Your task to perform on an android device: Do I have any events tomorrow? Image 0: 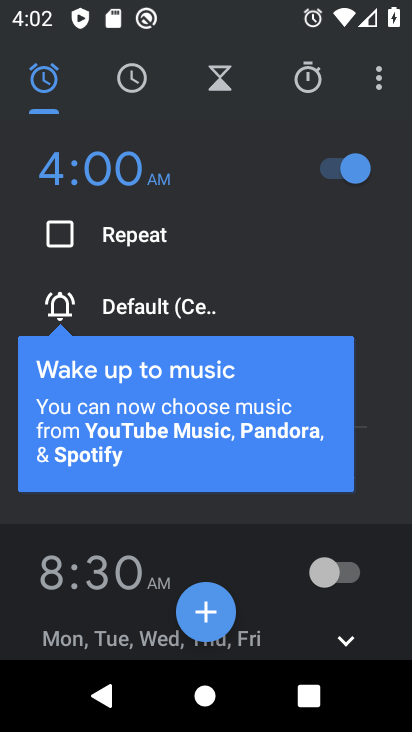
Step 0: press home button
Your task to perform on an android device: Do I have any events tomorrow? Image 1: 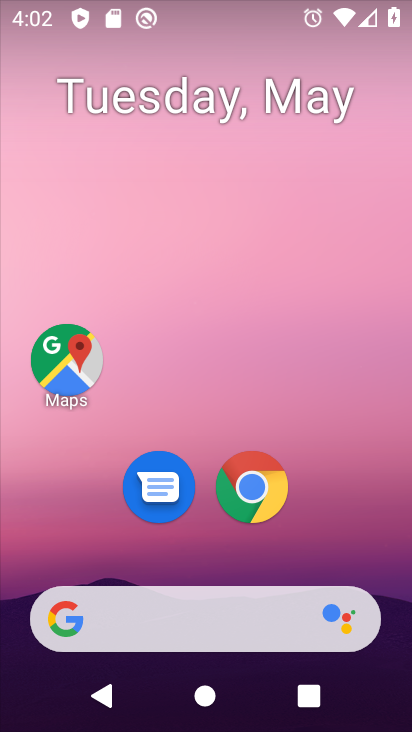
Step 1: drag from (319, 505) to (333, 105)
Your task to perform on an android device: Do I have any events tomorrow? Image 2: 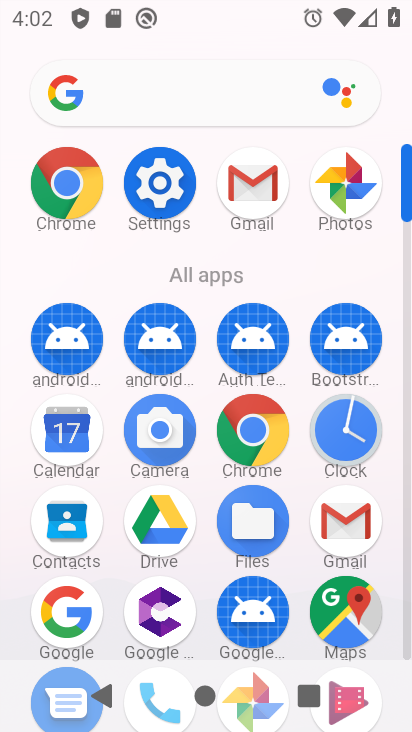
Step 2: click (68, 445)
Your task to perform on an android device: Do I have any events tomorrow? Image 3: 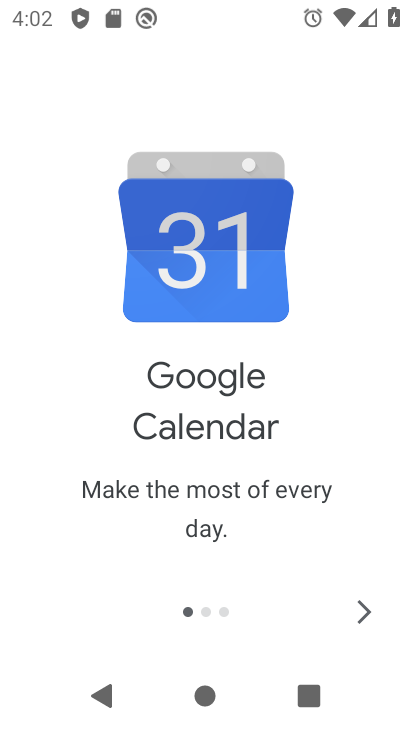
Step 3: click (366, 606)
Your task to perform on an android device: Do I have any events tomorrow? Image 4: 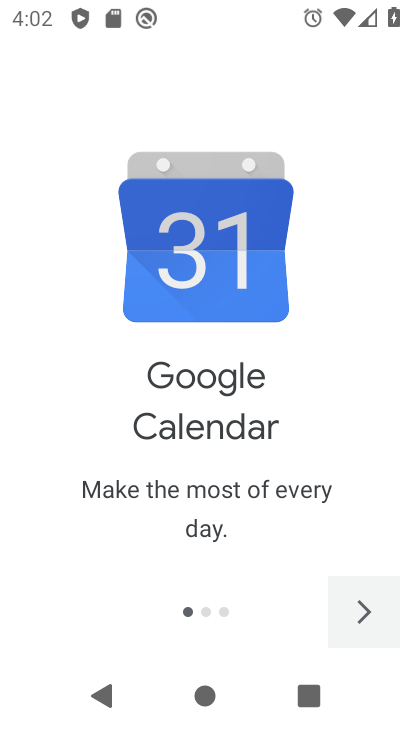
Step 4: click (366, 606)
Your task to perform on an android device: Do I have any events tomorrow? Image 5: 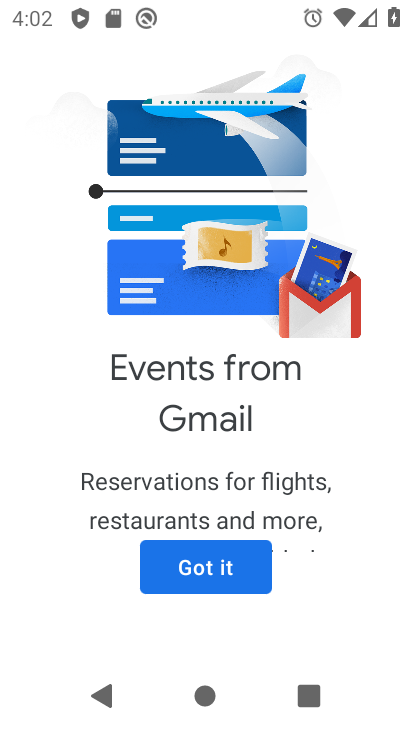
Step 5: click (205, 572)
Your task to perform on an android device: Do I have any events tomorrow? Image 6: 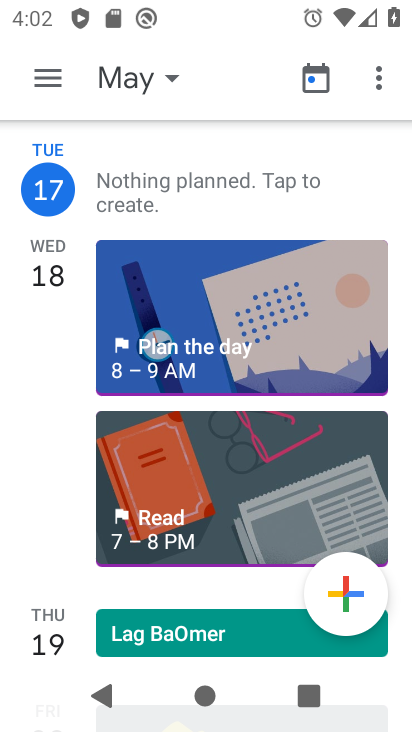
Step 6: click (47, 277)
Your task to perform on an android device: Do I have any events tomorrow? Image 7: 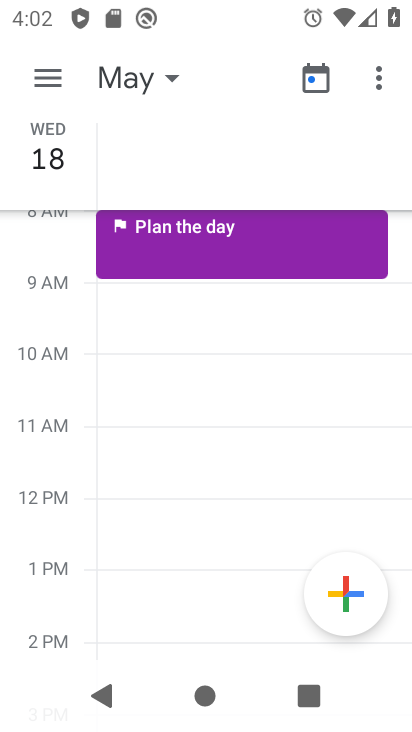
Step 7: task complete